Your task to perform on an android device: toggle priority inbox in the gmail app Image 0: 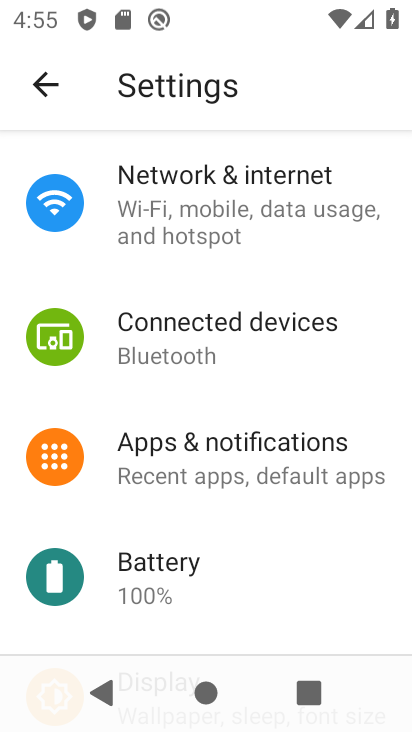
Step 0: press home button
Your task to perform on an android device: toggle priority inbox in the gmail app Image 1: 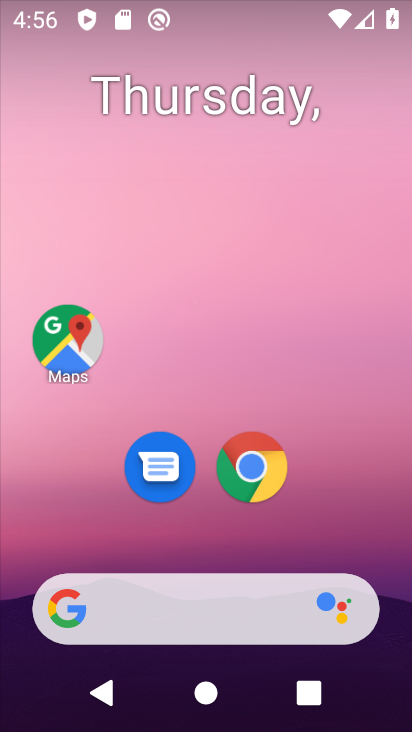
Step 1: drag from (389, 518) to (295, 51)
Your task to perform on an android device: toggle priority inbox in the gmail app Image 2: 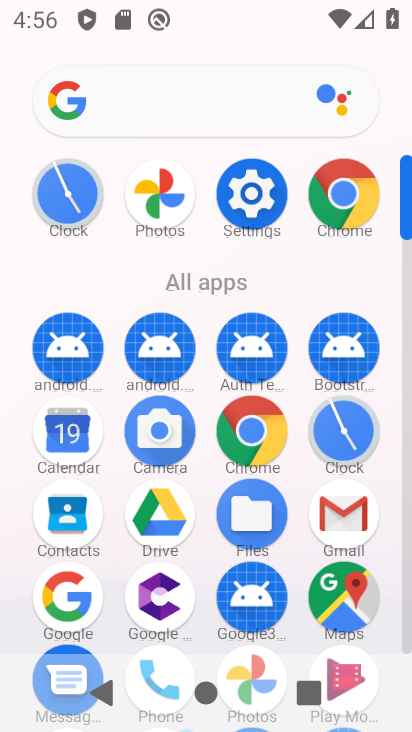
Step 2: click (331, 529)
Your task to perform on an android device: toggle priority inbox in the gmail app Image 3: 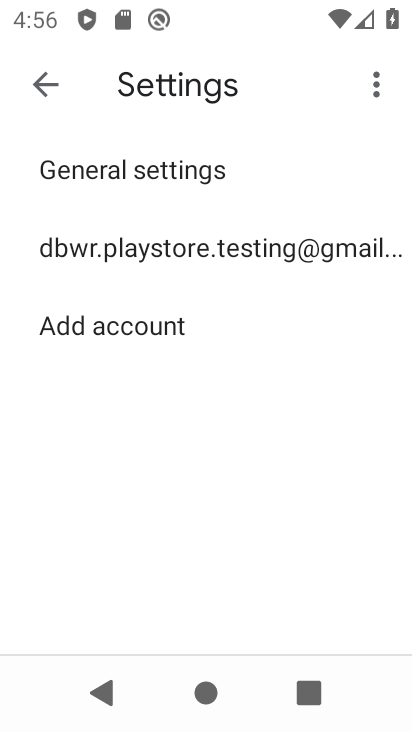
Step 3: click (339, 252)
Your task to perform on an android device: toggle priority inbox in the gmail app Image 4: 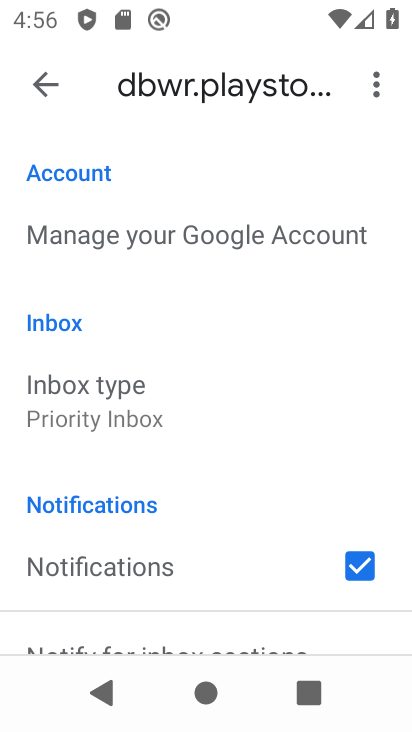
Step 4: click (301, 414)
Your task to perform on an android device: toggle priority inbox in the gmail app Image 5: 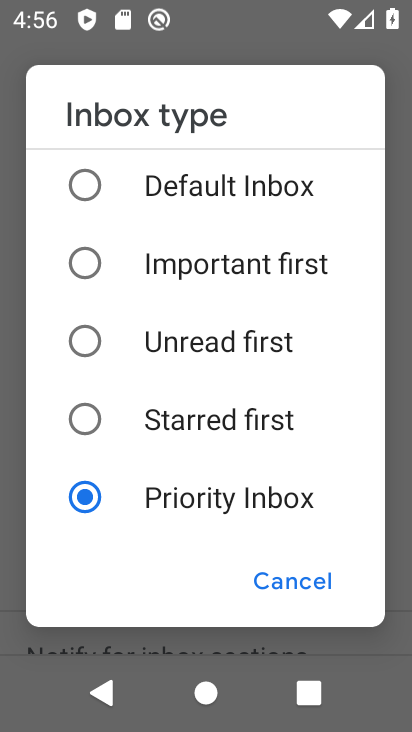
Step 5: click (285, 252)
Your task to perform on an android device: toggle priority inbox in the gmail app Image 6: 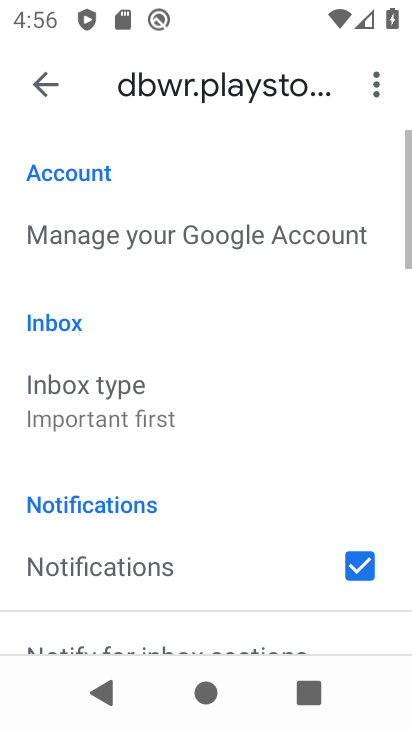
Step 6: task complete